Your task to perform on an android device: Search for sushi restaurants on Maps Image 0: 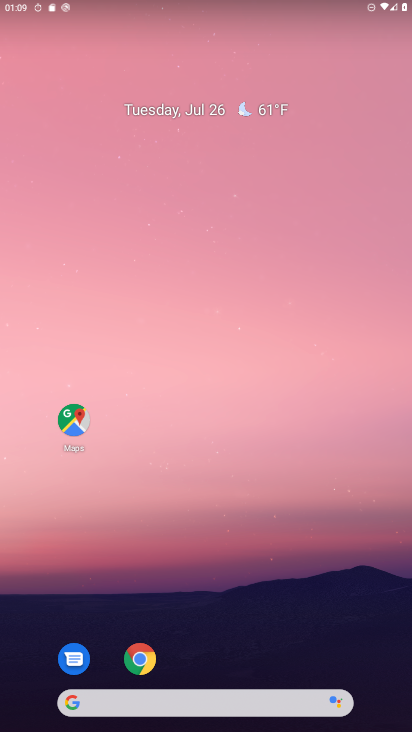
Step 0: click (84, 423)
Your task to perform on an android device: Search for sushi restaurants on Maps Image 1: 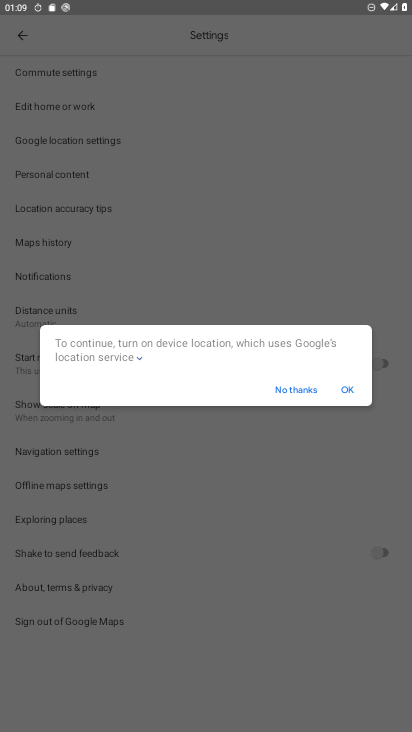
Step 1: click (21, 37)
Your task to perform on an android device: Search for sushi restaurants on Maps Image 2: 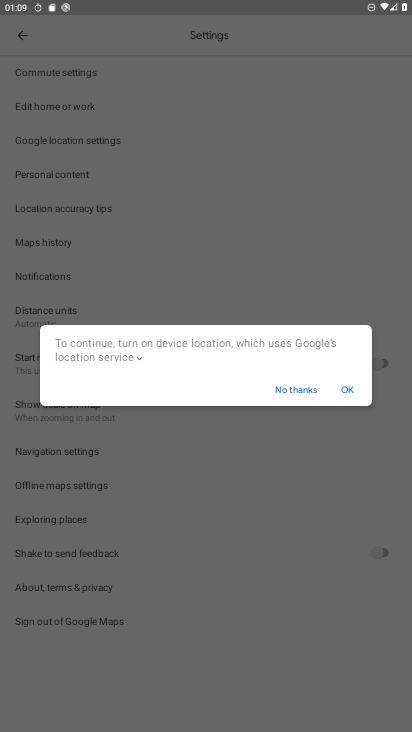
Step 2: click (347, 386)
Your task to perform on an android device: Search for sushi restaurants on Maps Image 3: 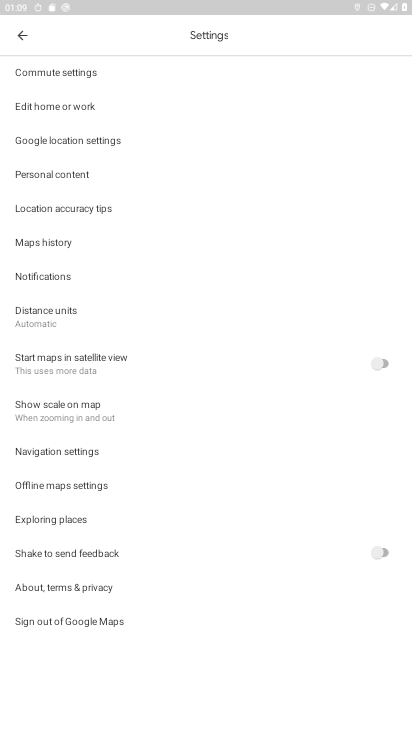
Step 3: press home button
Your task to perform on an android device: Search for sushi restaurants on Maps Image 4: 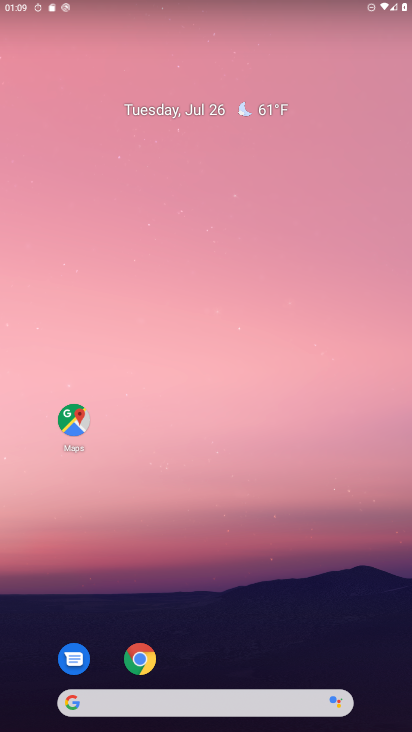
Step 4: click (88, 426)
Your task to perform on an android device: Search for sushi restaurants on Maps Image 5: 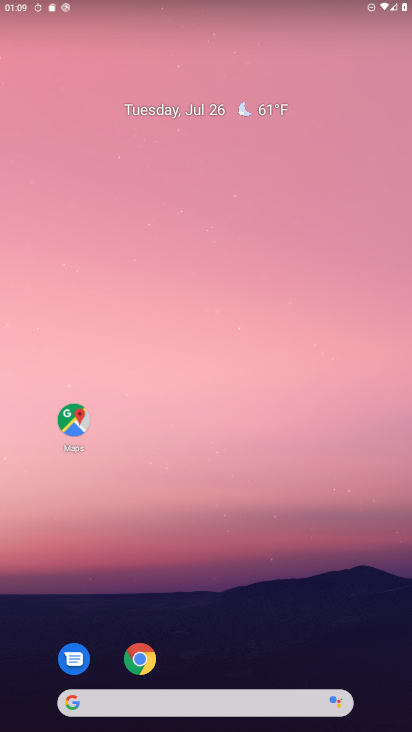
Step 5: click (75, 423)
Your task to perform on an android device: Search for sushi restaurants on Maps Image 6: 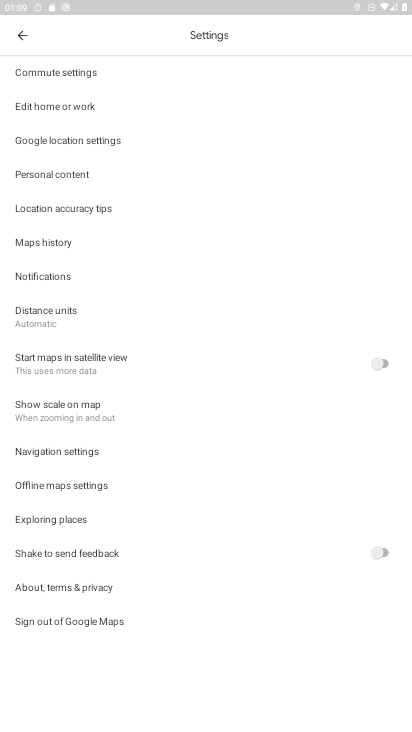
Step 6: click (15, 32)
Your task to perform on an android device: Search for sushi restaurants on Maps Image 7: 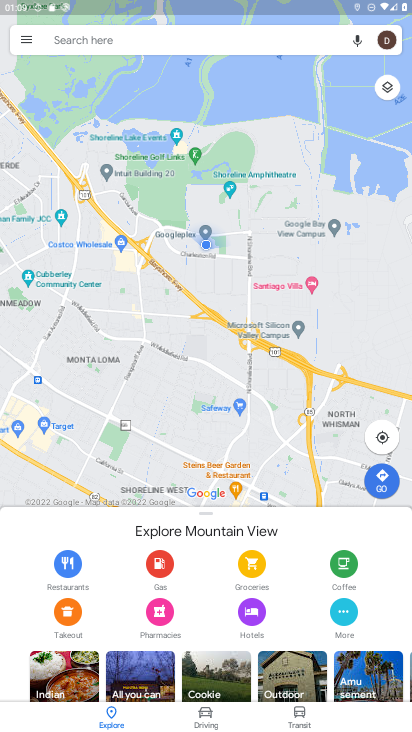
Step 7: click (90, 32)
Your task to perform on an android device: Search for sushi restaurants on Maps Image 8: 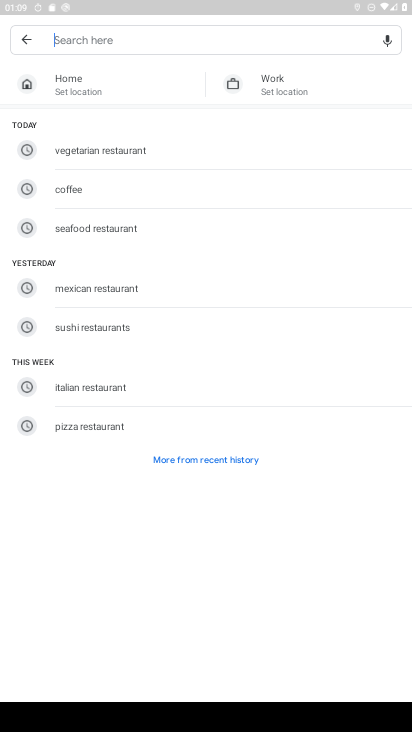
Step 8: click (103, 328)
Your task to perform on an android device: Search for sushi restaurants on Maps Image 9: 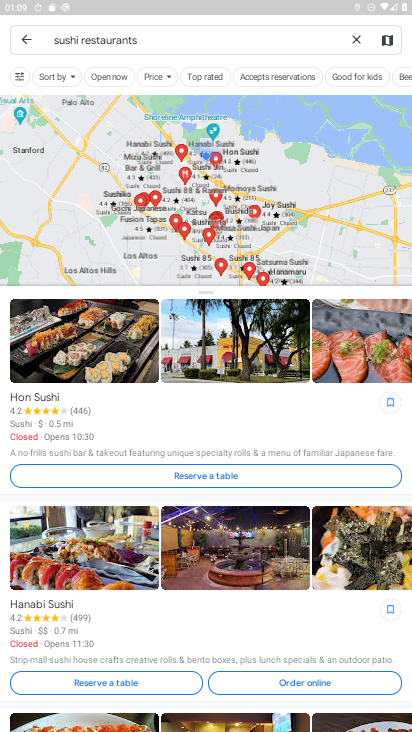
Step 9: task complete